Your task to perform on an android device: turn pop-ups on in chrome Image 0: 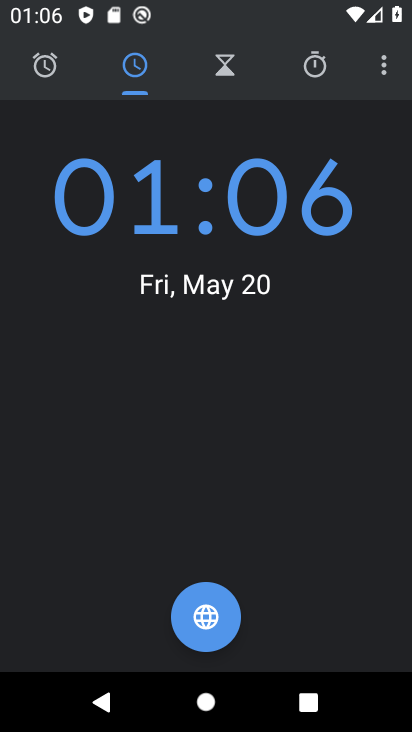
Step 0: press home button
Your task to perform on an android device: turn pop-ups on in chrome Image 1: 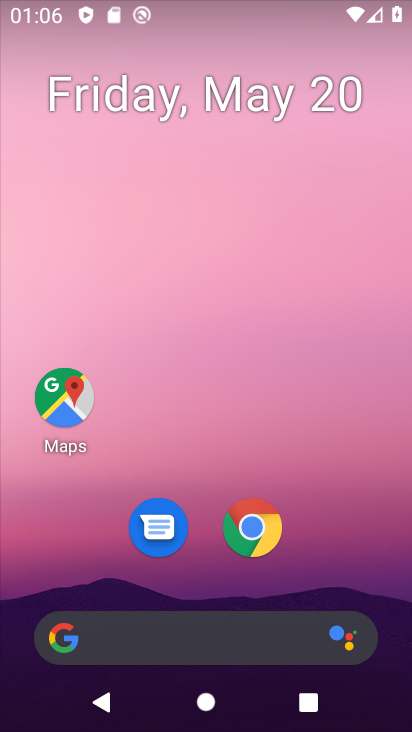
Step 1: click (248, 520)
Your task to perform on an android device: turn pop-ups on in chrome Image 2: 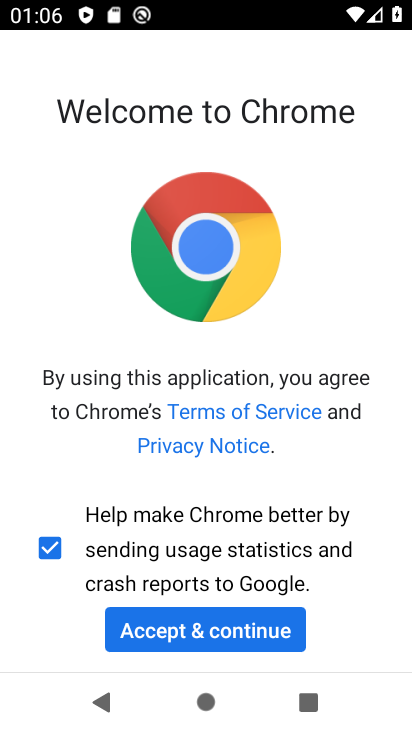
Step 2: click (196, 624)
Your task to perform on an android device: turn pop-ups on in chrome Image 3: 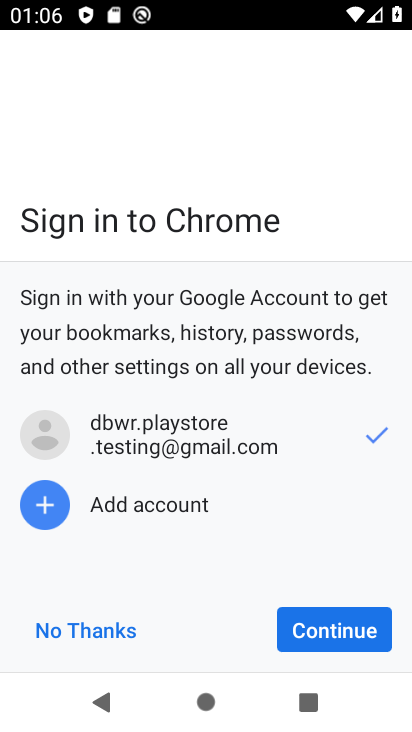
Step 3: click (338, 624)
Your task to perform on an android device: turn pop-ups on in chrome Image 4: 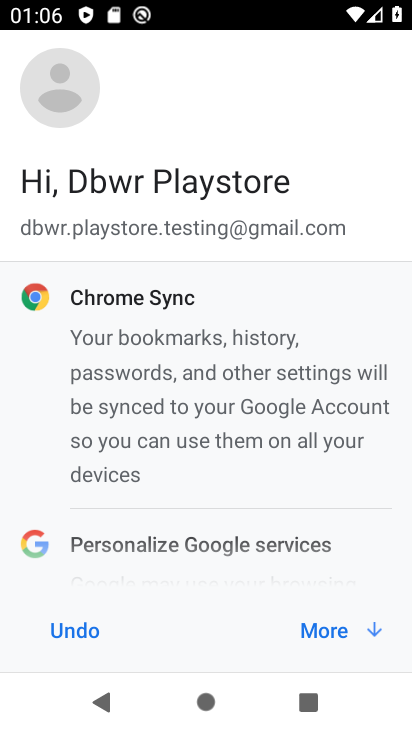
Step 4: click (332, 627)
Your task to perform on an android device: turn pop-ups on in chrome Image 5: 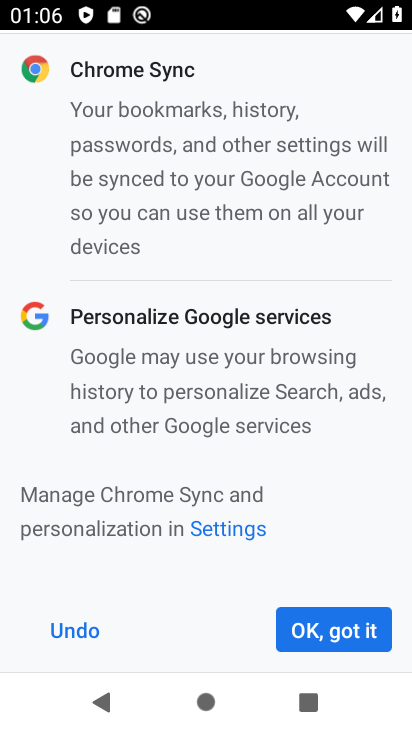
Step 5: click (335, 623)
Your task to perform on an android device: turn pop-ups on in chrome Image 6: 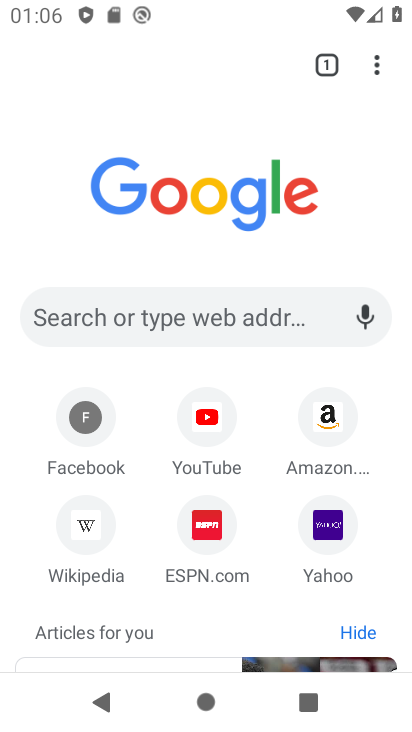
Step 6: click (378, 52)
Your task to perform on an android device: turn pop-ups on in chrome Image 7: 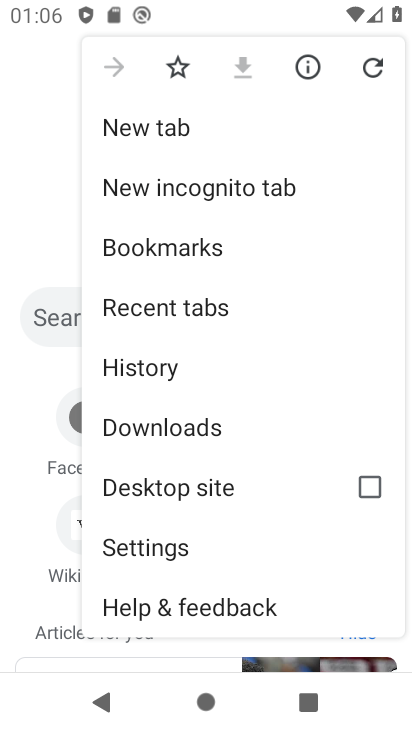
Step 7: click (201, 546)
Your task to perform on an android device: turn pop-ups on in chrome Image 8: 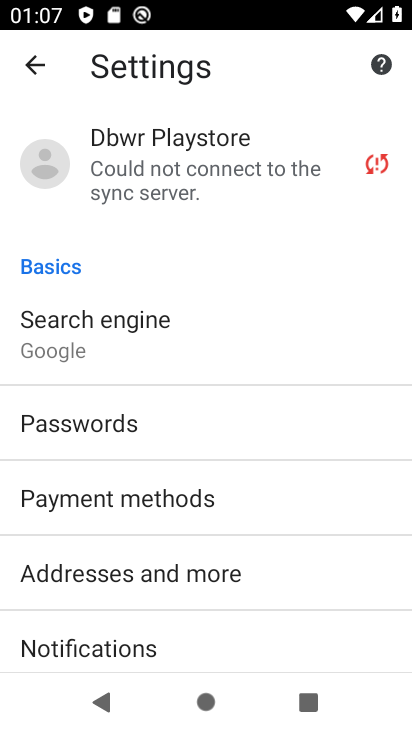
Step 8: drag from (215, 622) to (266, 113)
Your task to perform on an android device: turn pop-ups on in chrome Image 9: 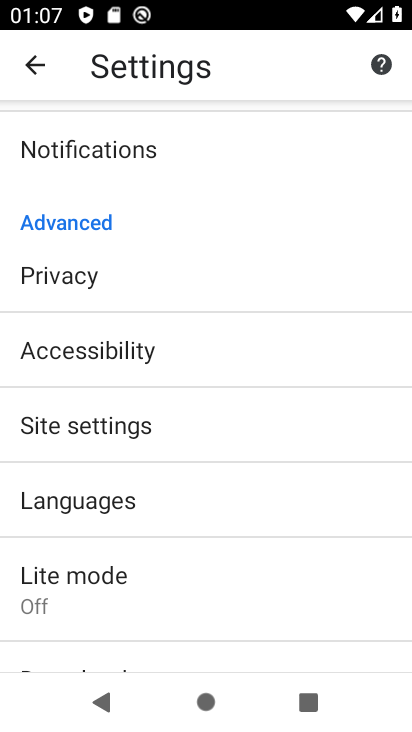
Step 9: drag from (190, 582) to (244, 96)
Your task to perform on an android device: turn pop-ups on in chrome Image 10: 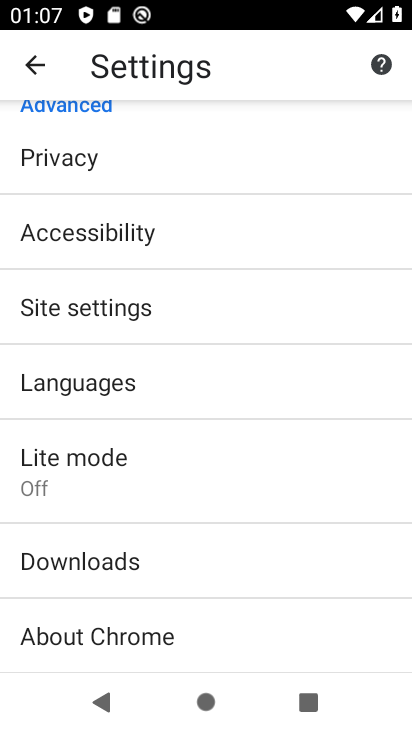
Step 10: click (185, 301)
Your task to perform on an android device: turn pop-ups on in chrome Image 11: 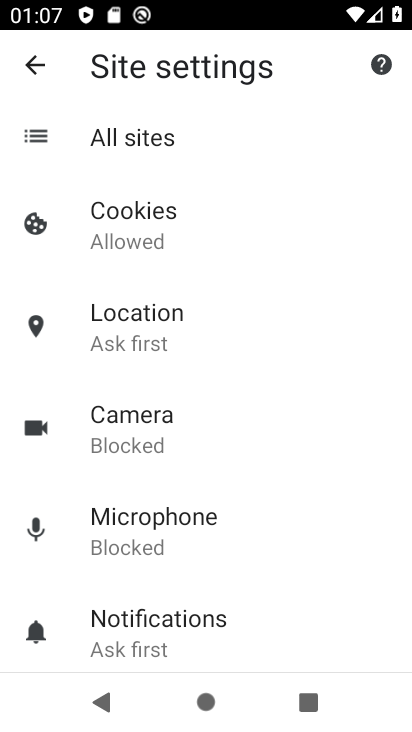
Step 11: drag from (186, 609) to (262, 179)
Your task to perform on an android device: turn pop-ups on in chrome Image 12: 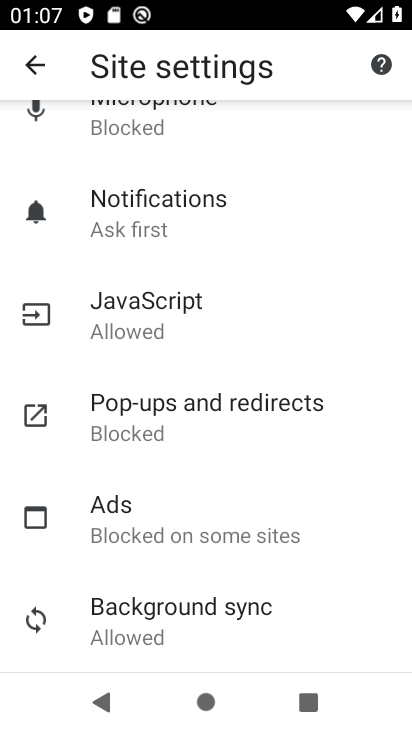
Step 12: click (210, 403)
Your task to perform on an android device: turn pop-ups on in chrome Image 13: 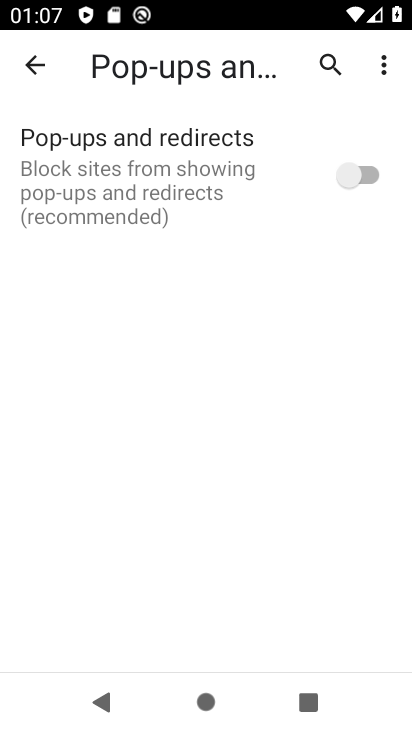
Step 13: click (362, 171)
Your task to perform on an android device: turn pop-ups on in chrome Image 14: 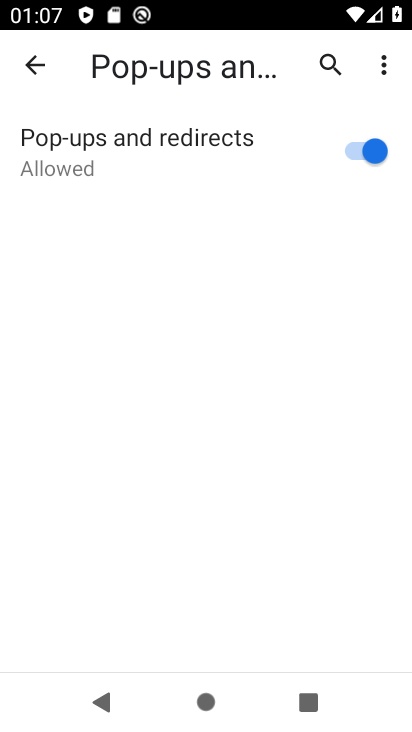
Step 14: task complete